Your task to perform on an android device: Open Chrome and go to the settings page Image 0: 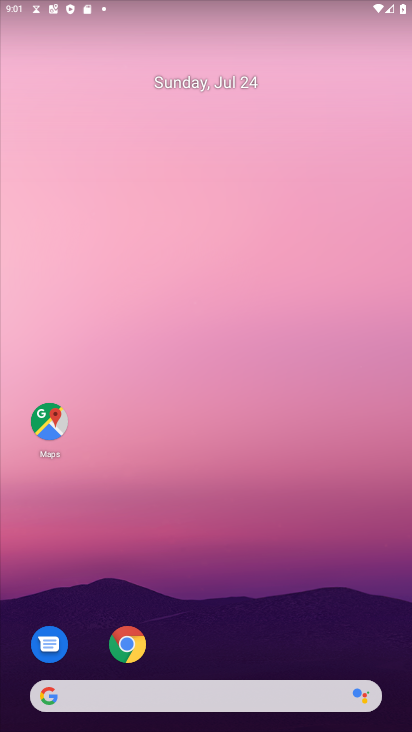
Step 0: drag from (298, 643) to (280, 7)
Your task to perform on an android device: Open Chrome and go to the settings page Image 1: 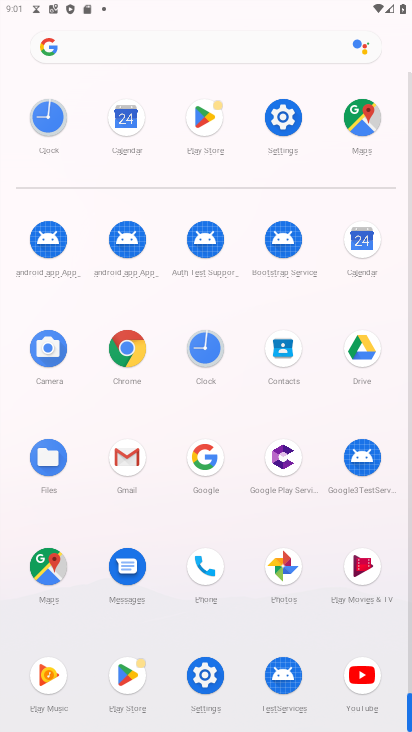
Step 1: click (121, 335)
Your task to perform on an android device: Open Chrome and go to the settings page Image 2: 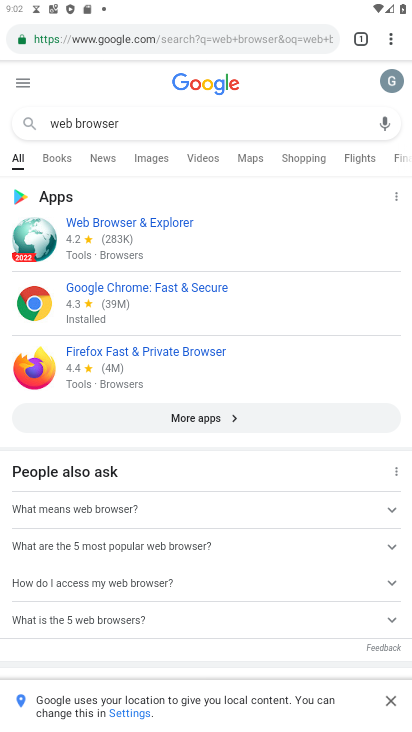
Step 2: task complete